Your task to perform on an android device: set the timer Image 0: 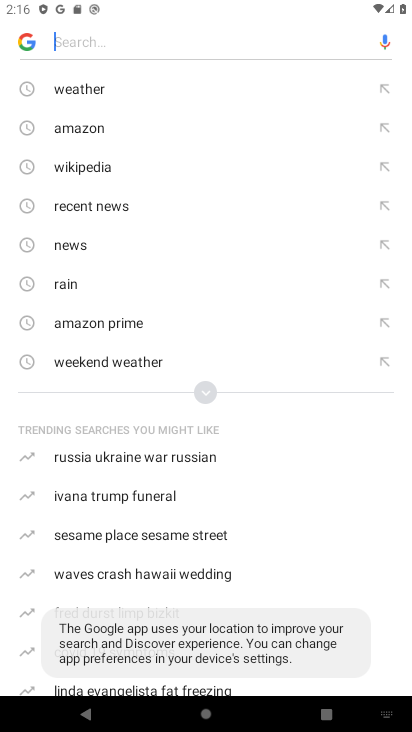
Step 0: press home button
Your task to perform on an android device: set the timer Image 1: 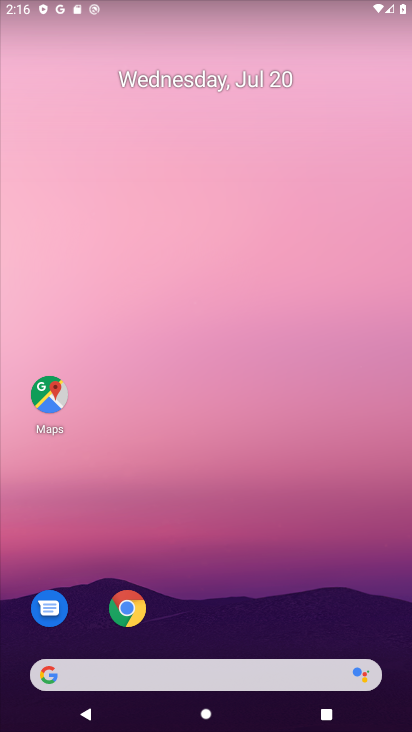
Step 1: drag from (181, 606) to (201, 85)
Your task to perform on an android device: set the timer Image 2: 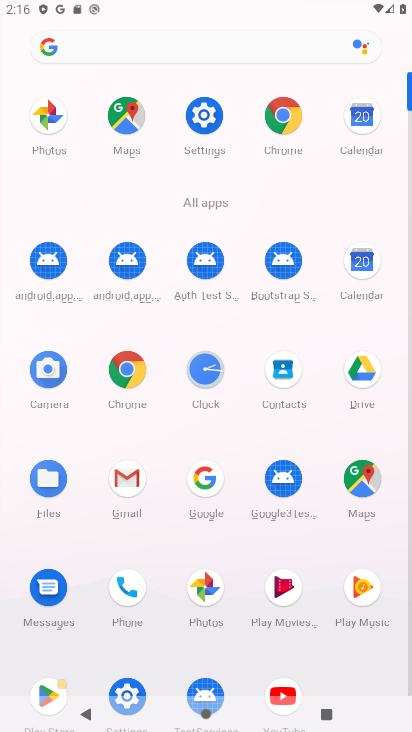
Step 2: click (201, 376)
Your task to perform on an android device: set the timer Image 3: 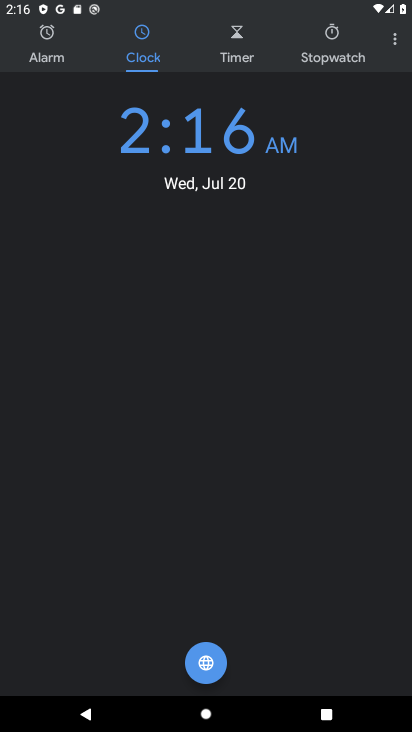
Step 3: click (394, 34)
Your task to perform on an android device: set the timer Image 4: 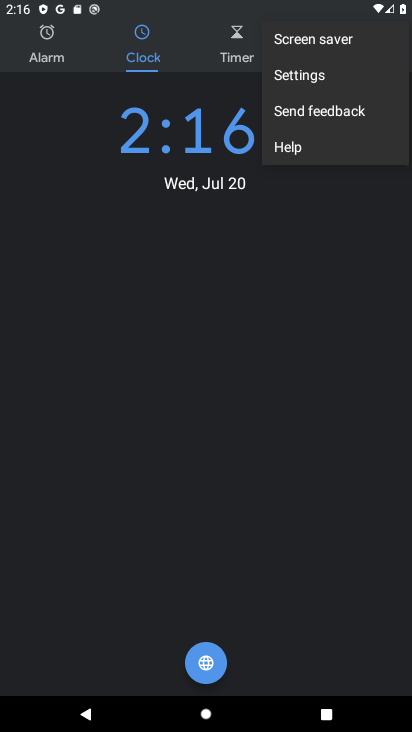
Step 4: click (323, 74)
Your task to perform on an android device: set the timer Image 5: 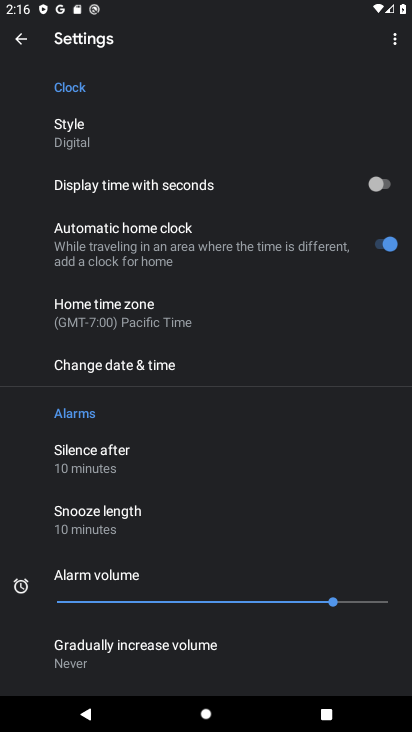
Step 5: click (20, 44)
Your task to perform on an android device: set the timer Image 6: 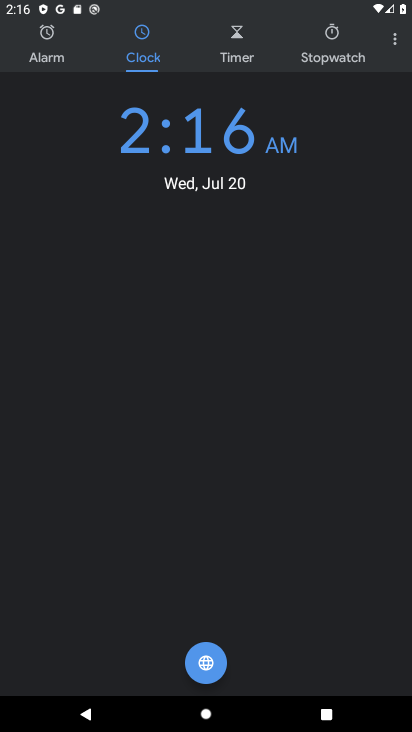
Step 6: click (227, 50)
Your task to perform on an android device: set the timer Image 7: 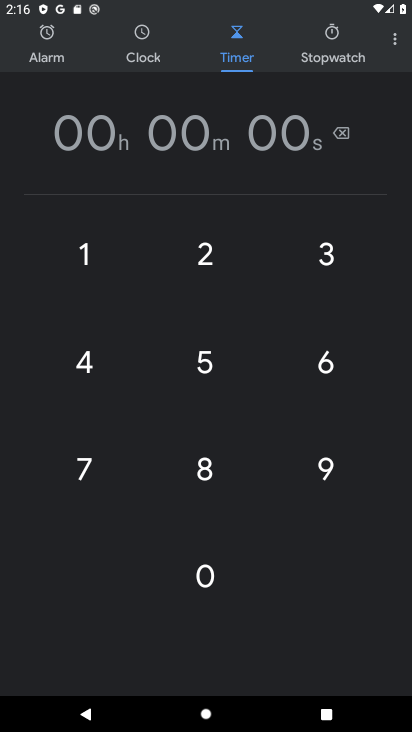
Step 7: click (204, 255)
Your task to perform on an android device: set the timer Image 8: 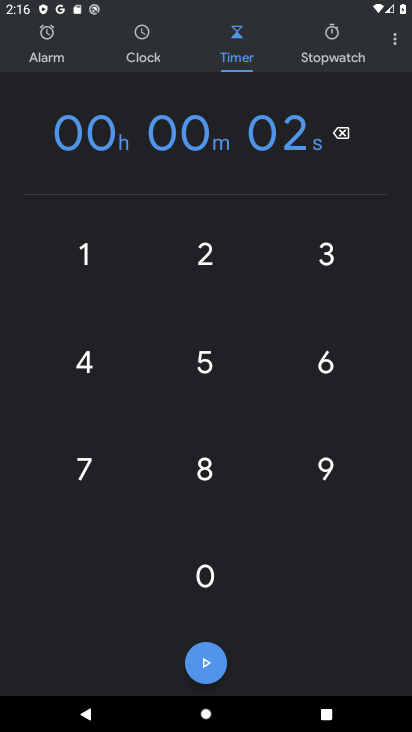
Step 8: click (204, 577)
Your task to perform on an android device: set the timer Image 9: 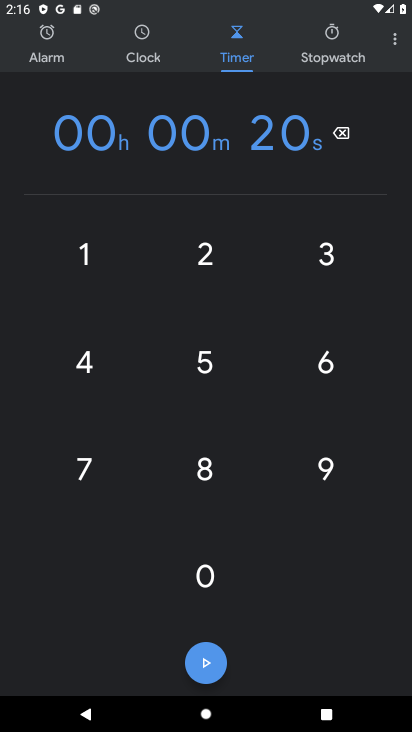
Step 9: click (204, 577)
Your task to perform on an android device: set the timer Image 10: 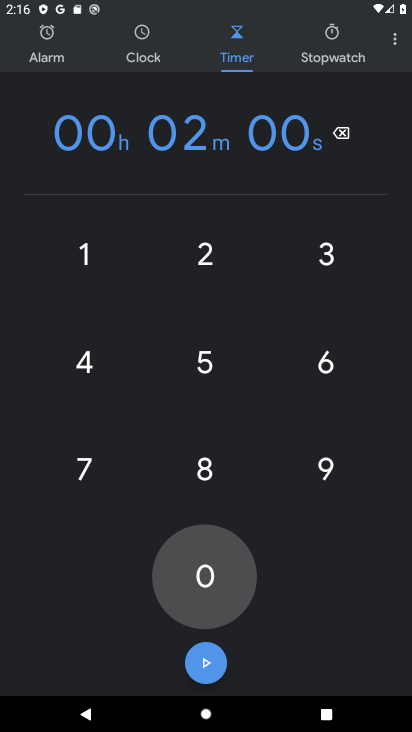
Step 10: click (204, 577)
Your task to perform on an android device: set the timer Image 11: 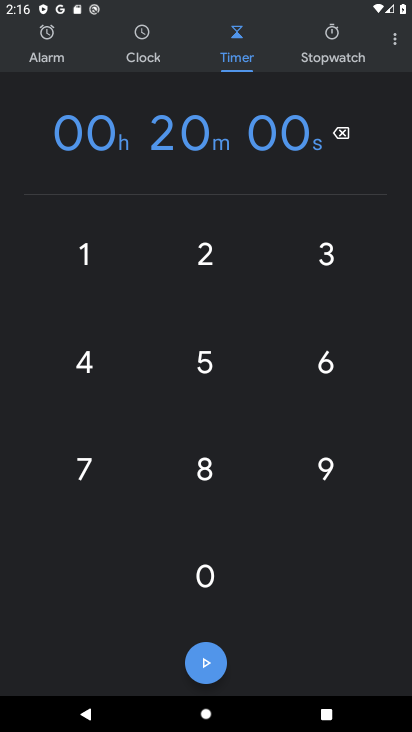
Step 11: click (221, 668)
Your task to perform on an android device: set the timer Image 12: 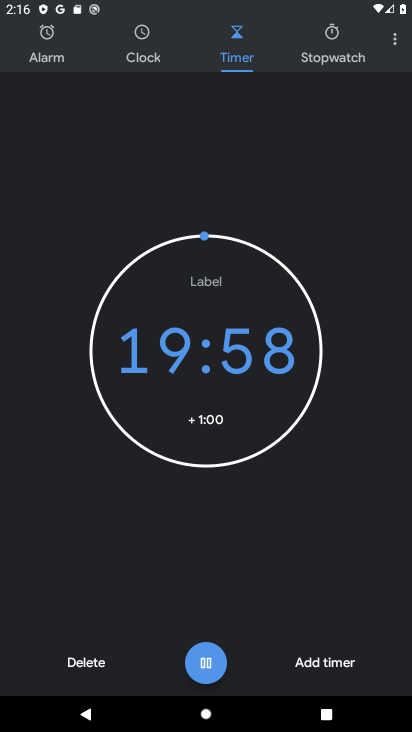
Step 12: click (306, 660)
Your task to perform on an android device: set the timer Image 13: 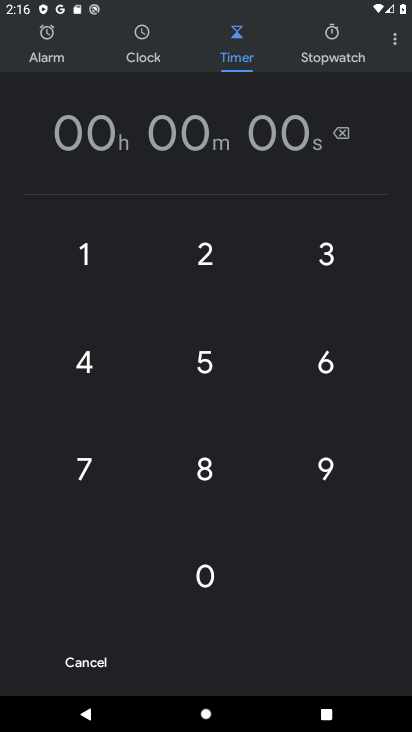
Step 13: task complete